Your task to perform on an android device: Open the phone app and click the voicemail tab. Image 0: 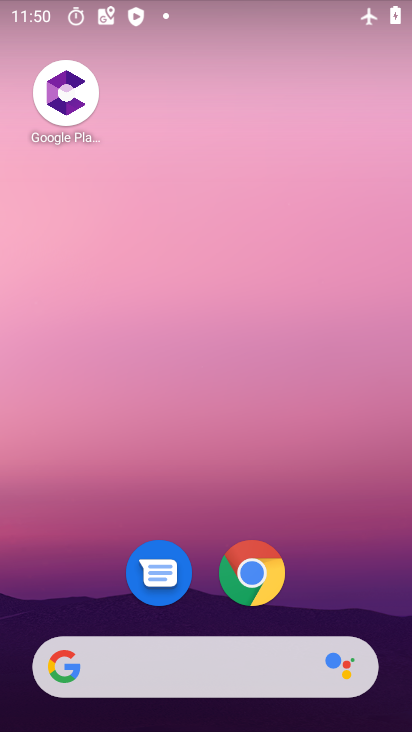
Step 0: drag from (186, 513) to (219, 320)
Your task to perform on an android device: Open the phone app and click the voicemail tab. Image 1: 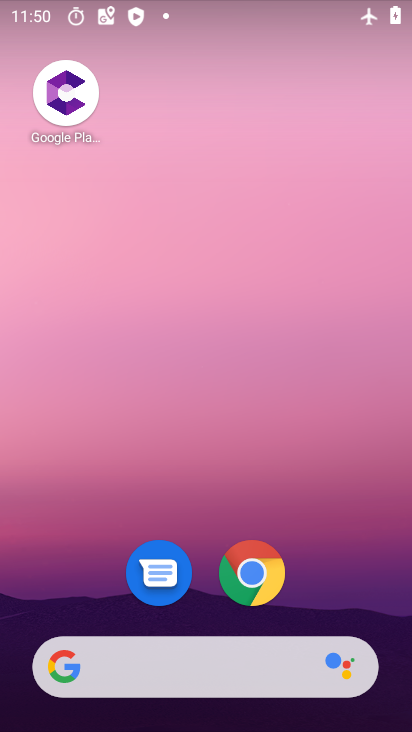
Step 1: drag from (240, 703) to (240, 84)
Your task to perform on an android device: Open the phone app and click the voicemail tab. Image 2: 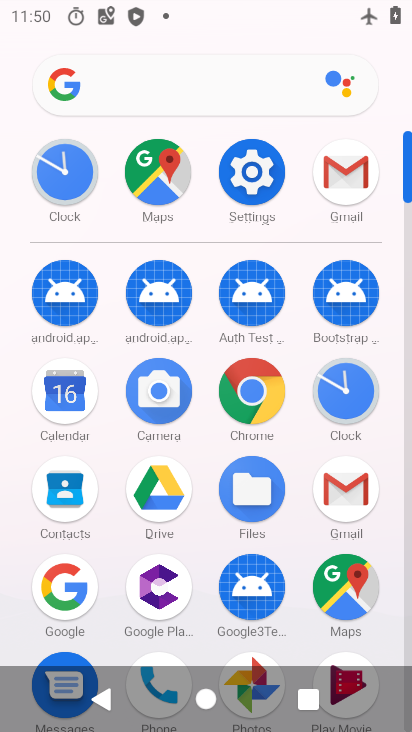
Step 2: click (144, 656)
Your task to perform on an android device: Open the phone app and click the voicemail tab. Image 3: 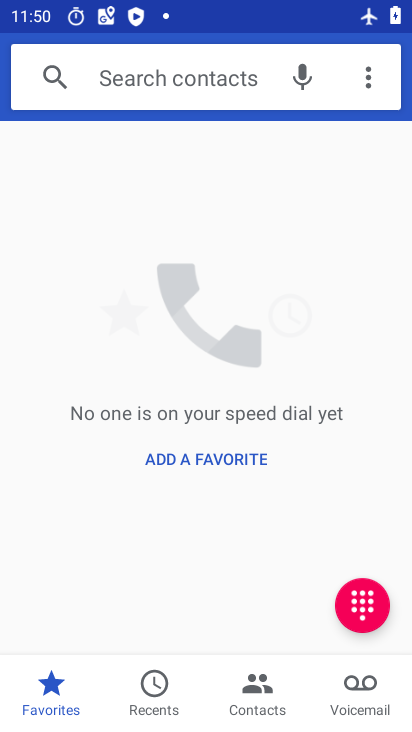
Step 3: click (338, 703)
Your task to perform on an android device: Open the phone app and click the voicemail tab. Image 4: 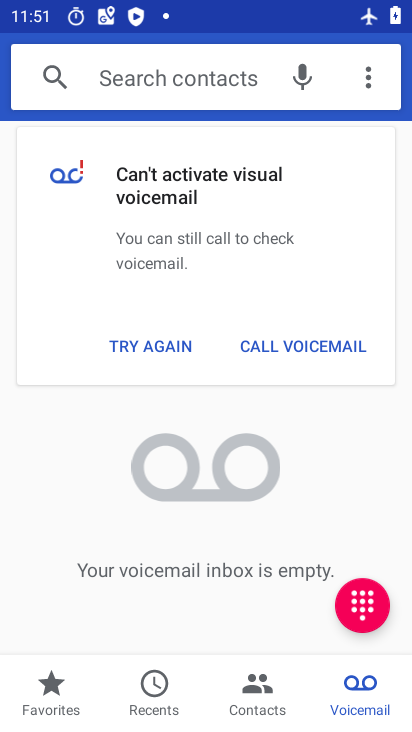
Step 4: task complete